Your task to perform on an android device: choose inbox layout in the gmail app Image 0: 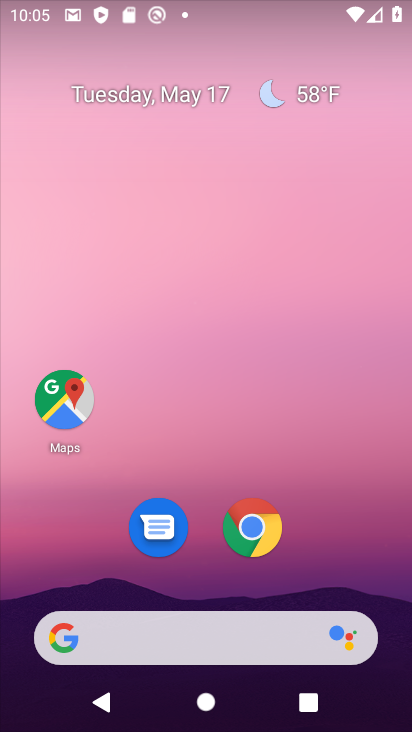
Step 0: drag from (356, 575) to (273, 1)
Your task to perform on an android device: choose inbox layout in the gmail app Image 1: 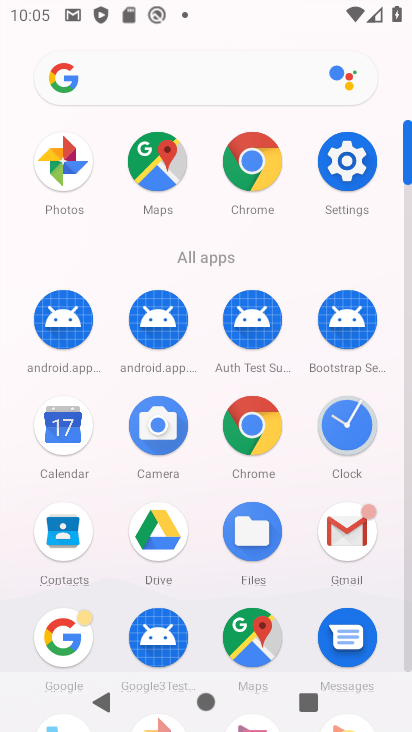
Step 1: click (348, 530)
Your task to perform on an android device: choose inbox layout in the gmail app Image 2: 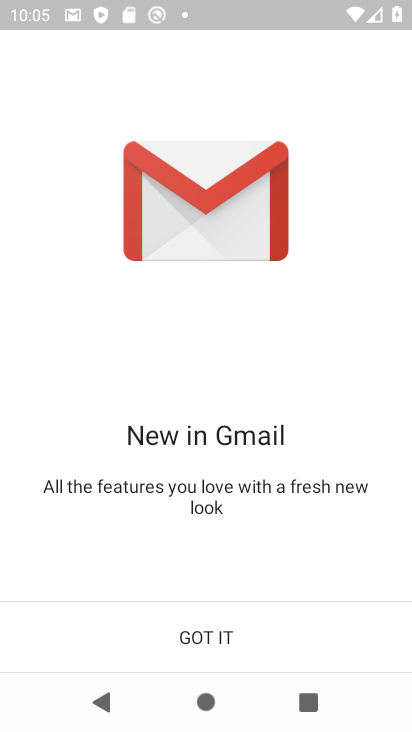
Step 2: click (193, 639)
Your task to perform on an android device: choose inbox layout in the gmail app Image 3: 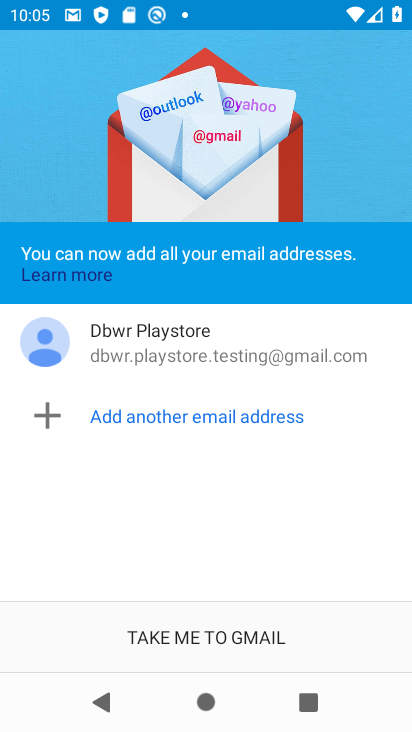
Step 3: click (193, 639)
Your task to perform on an android device: choose inbox layout in the gmail app Image 4: 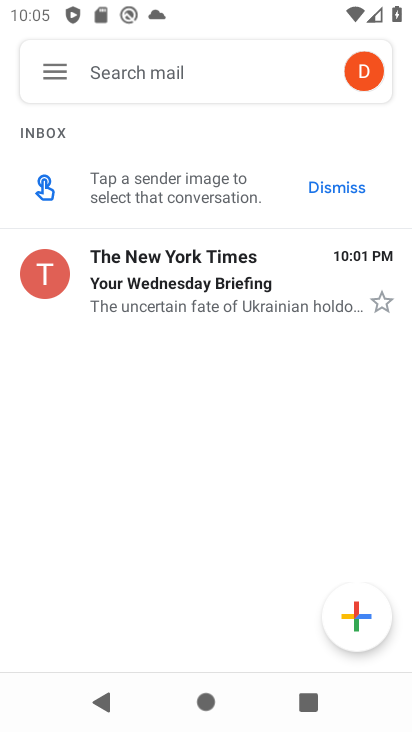
Step 4: click (60, 74)
Your task to perform on an android device: choose inbox layout in the gmail app Image 5: 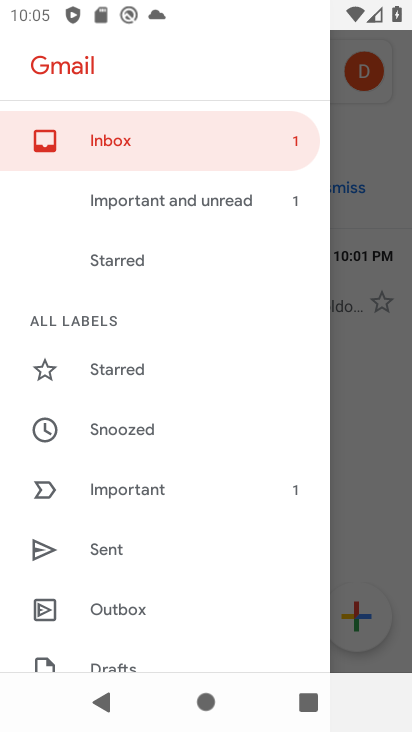
Step 5: drag from (282, 617) to (242, 257)
Your task to perform on an android device: choose inbox layout in the gmail app Image 6: 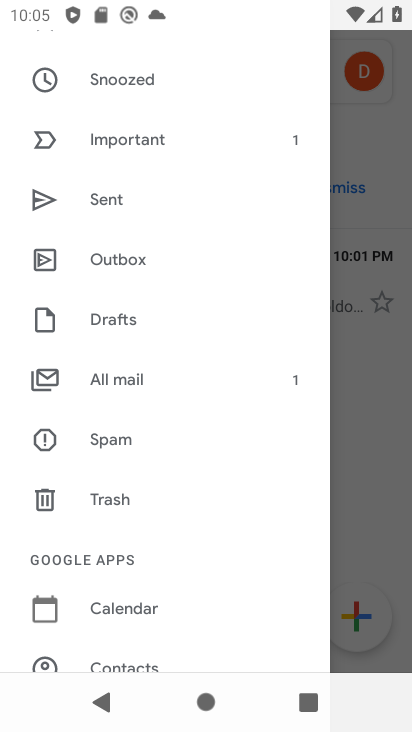
Step 6: drag from (256, 589) to (169, 65)
Your task to perform on an android device: choose inbox layout in the gmail app Image 7: 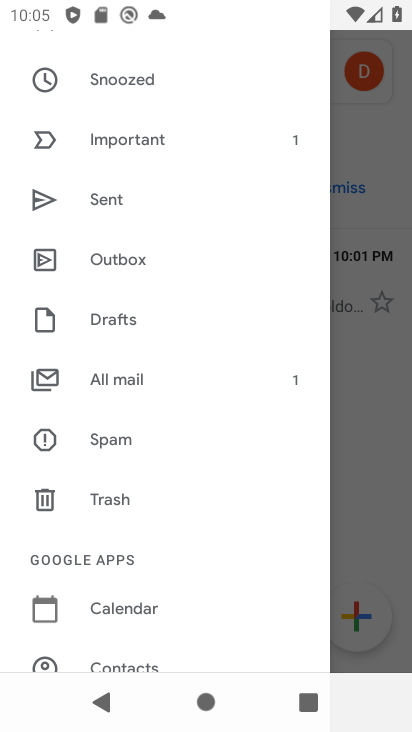
Step 7: drag from (240, 592) to (250, 1)
Your task to perform on an android device: choose inbox layout in the gmail app Image 8: 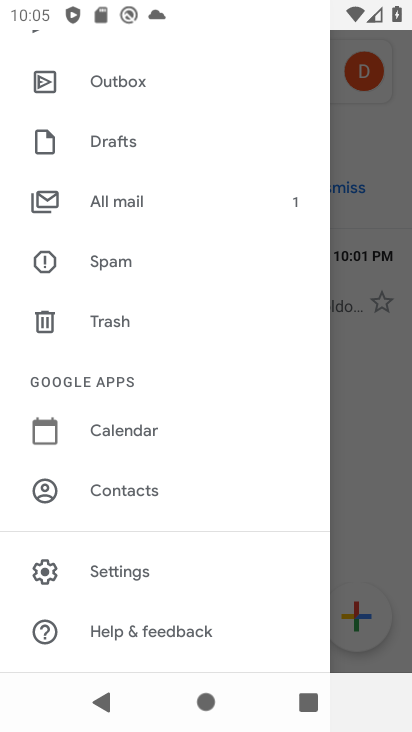
Step 8: click (114, 571)
Your task to perform on an android device: choose inbox layout in the gmail app Image 9: 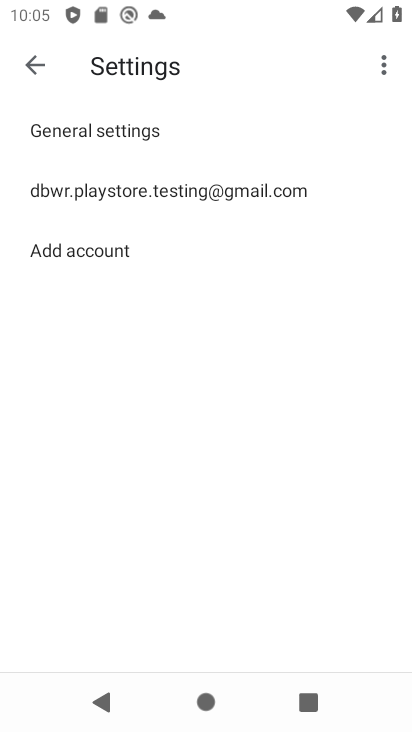
Step 9: click (53, 197)
Your task to perform on an android device: choose inbox layout in the gmail app Image 10: 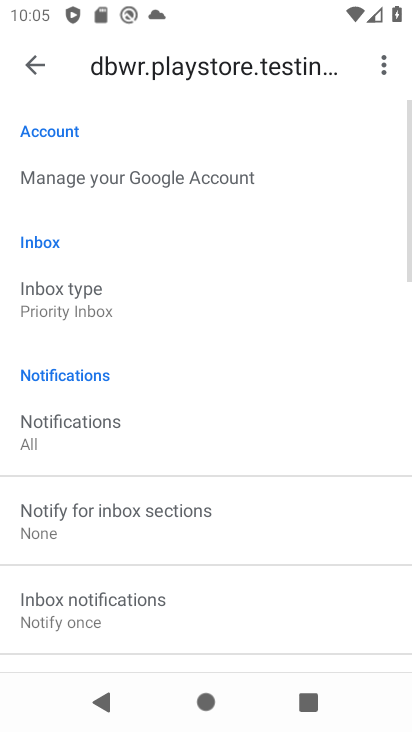
Step 10: click (37, 299)
Your task to perform on an android device: choose inbox layout in the gmail app Image 11: 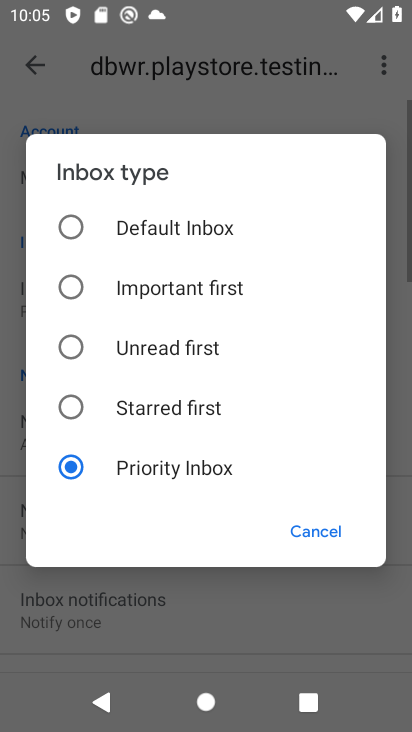
Step 11: click (63, 279)
Your task to perform on an android device: choose inbox layout in the gmail app Image 12: 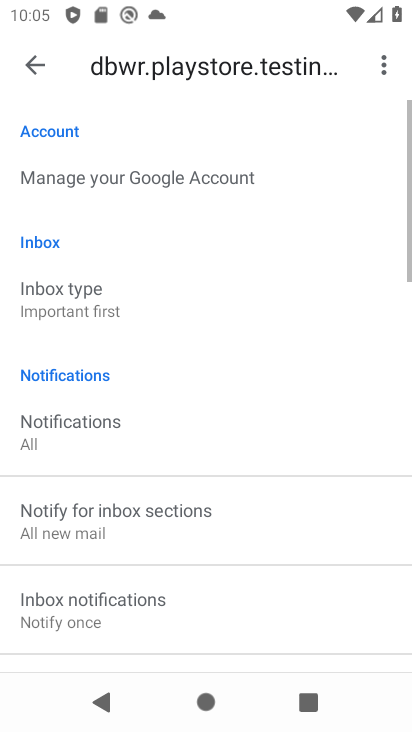
Step 12: task complete